Your task to perform on an android device: open chrome privacy settings Image 0: 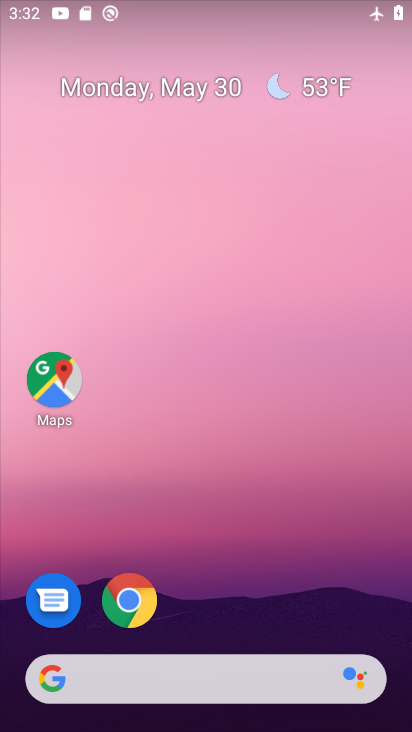
Step 0: drag from (296, 528) to (411, 119)
Your task to perform on an android device: open chrome privacy settings Image 1: 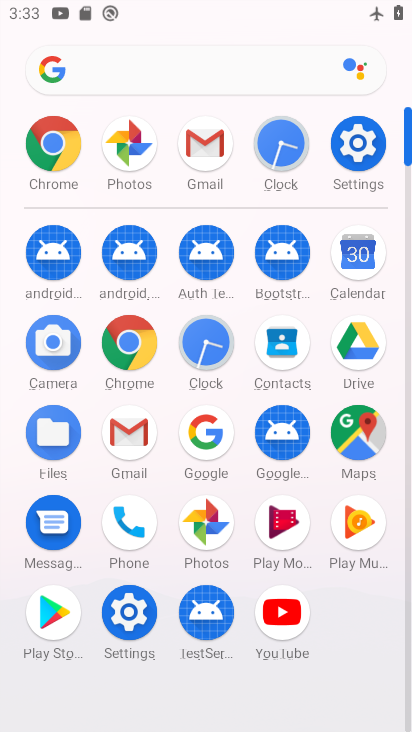
Step 1: click (382, 145)
Your task to perform on an android device: open chrome privacy settings Image 2: 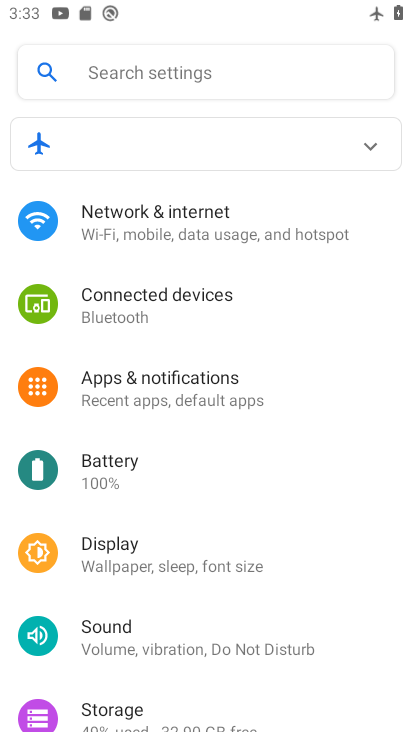
Step 2: drag from (191, 581) to (298, 247)
Your task to perform on an android device: open chrome privacy settings Image 3: 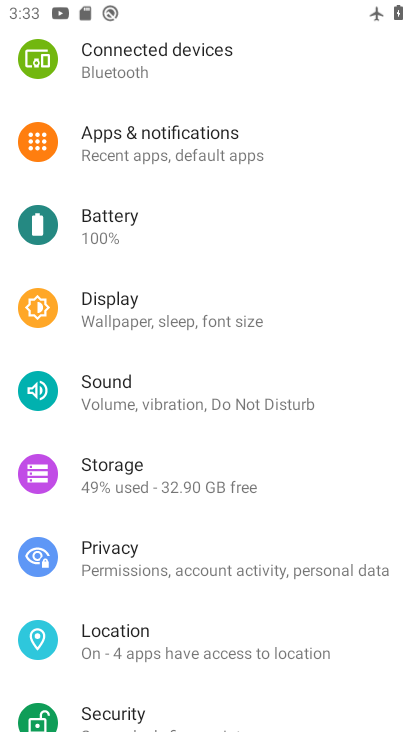
Step 3: click (100, 553)
Your task to perform on an android device: open chrome privacy settings Image 4: 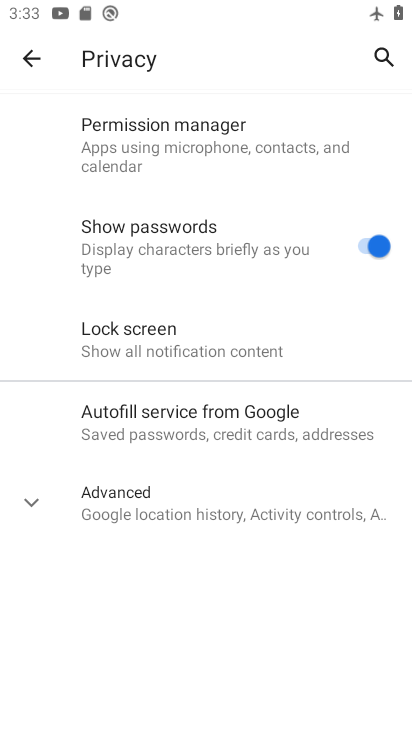
Step 4: task complete